Your task to perform on an android device: Open calendar and show me the first week of next month Image 0: 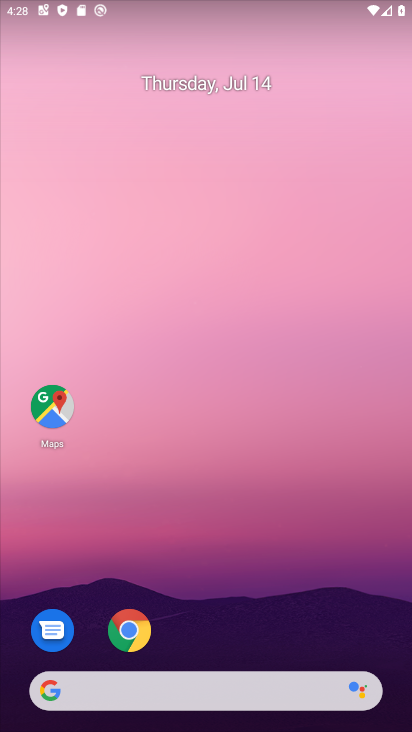
Step 0: drag from (202, 635) to (328, 16)
Your task to perform on an android device: Open calendar and show me the first week of next month Image 1: 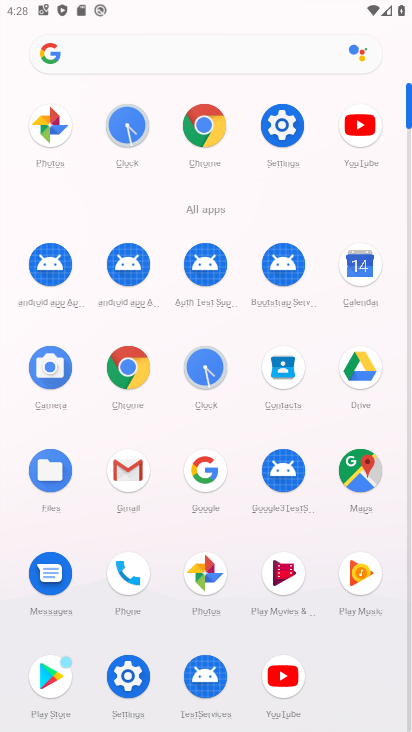
Step 1: click (366, 269)
Your task to perform on an android device: Open calendar and show me the first week of next month Image 2: 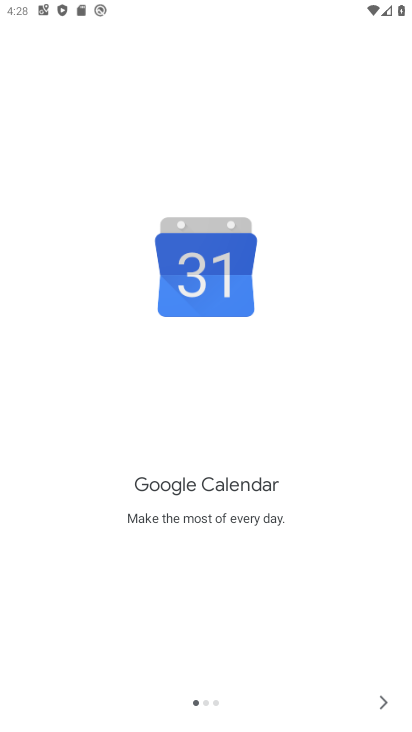
Step 2: click (379, 706)
Your task to perform on an android device: Open calendar and show me the first week of next month Image 3: 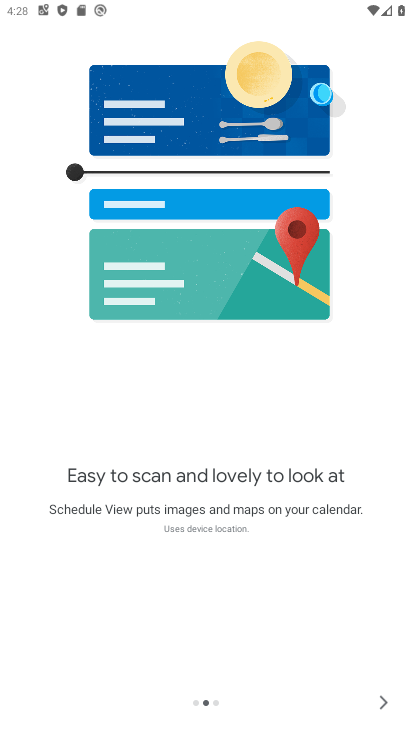
Step 3: click (380, 705)
Your task to perform on an android device: Open calendar and show me the first week of next month Image 4: 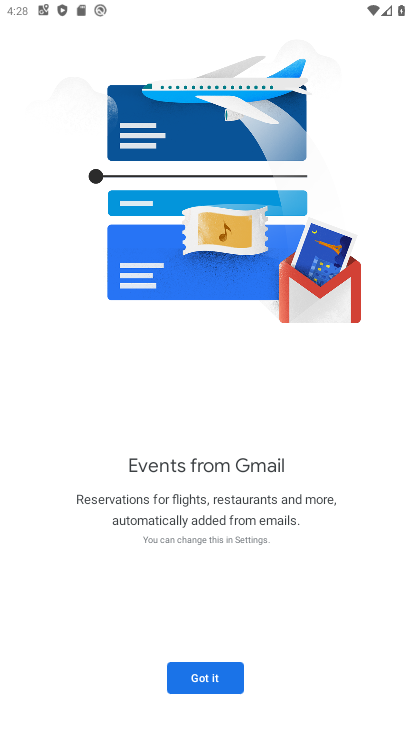
Step 4: click (211, 678)
Your task to perform on an android device: Open calendar and show me the first week of next month Image 5: 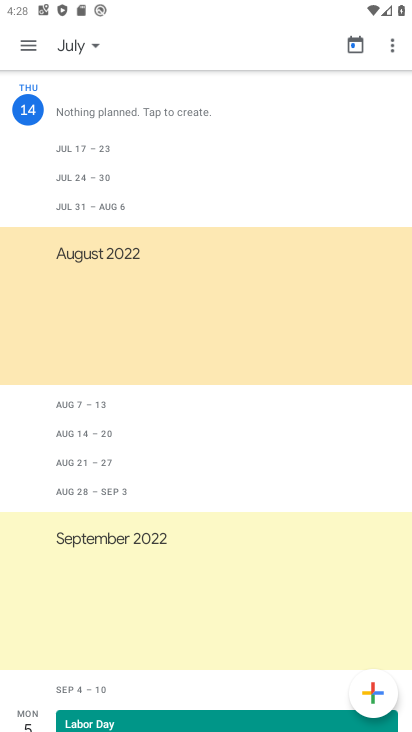
Step 5: click (88, 42)
Your task to perform on an android device: Open calendar and show me the first week of next month Image 6: 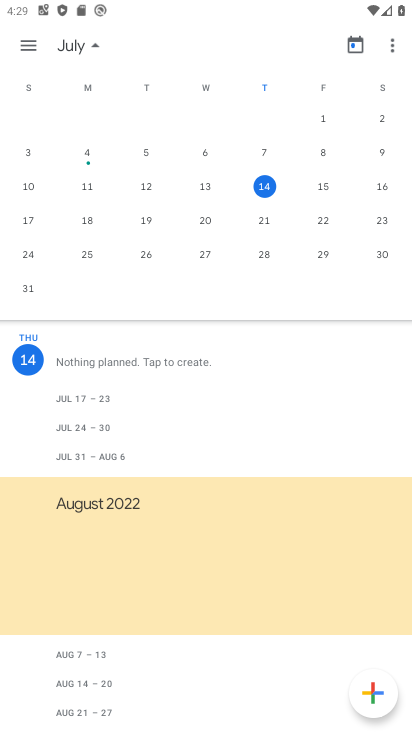
Step 6: drag from (347, 203) to (19, 209)
Your task to perform on an android device: Open calendar and show me the first week of next month Image 7: 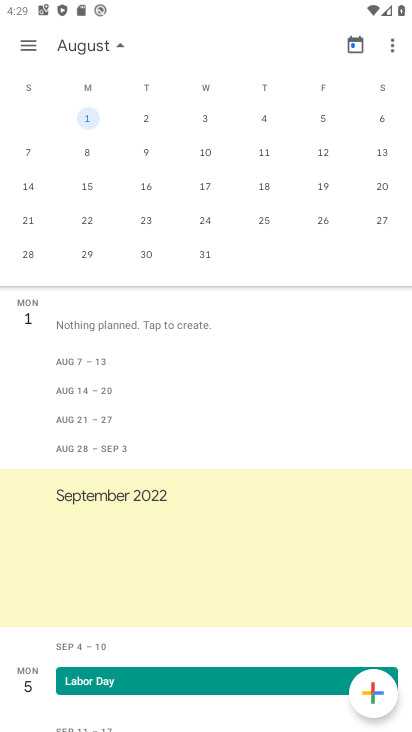
Step 7: click (83, 114)
Your task to perform on an android device: Open calendar and show me the first week of next month Image 8: 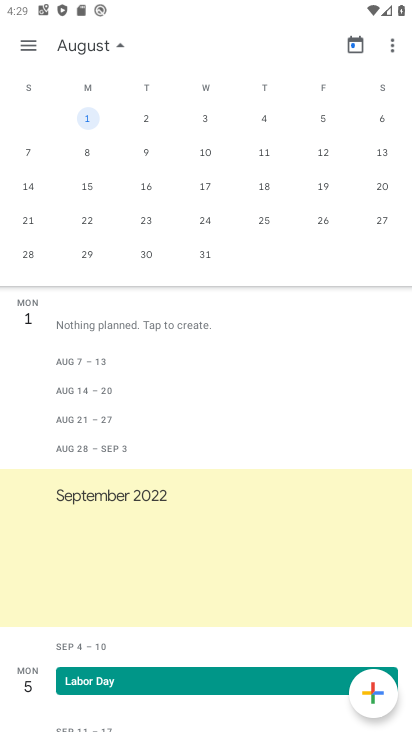
Step 8: task complete